Your task to perform on an android device: toggle javascript in the chrome app Image 0: 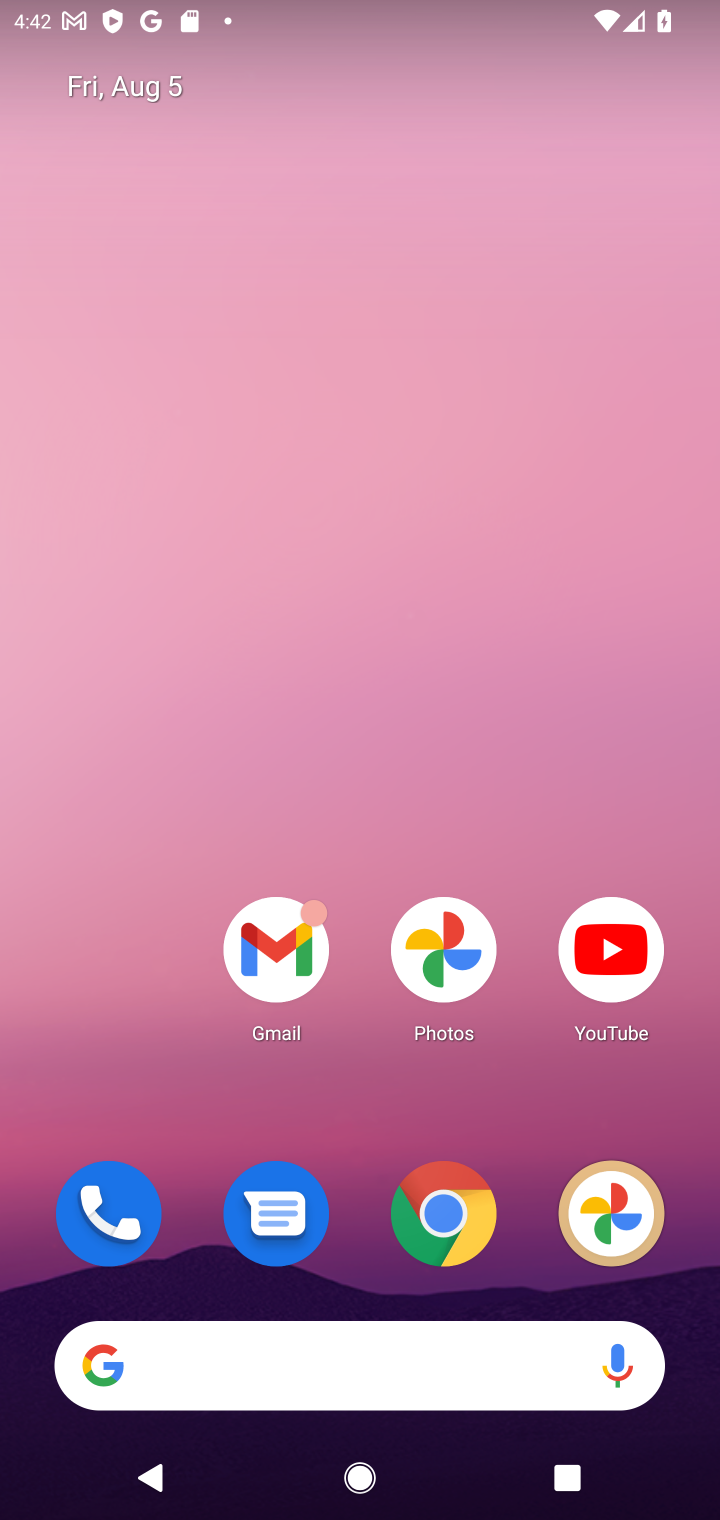
Step 0: click (453, 1254)
Your task to perform on an android device: toggle javascript in the chrome app Image 1: 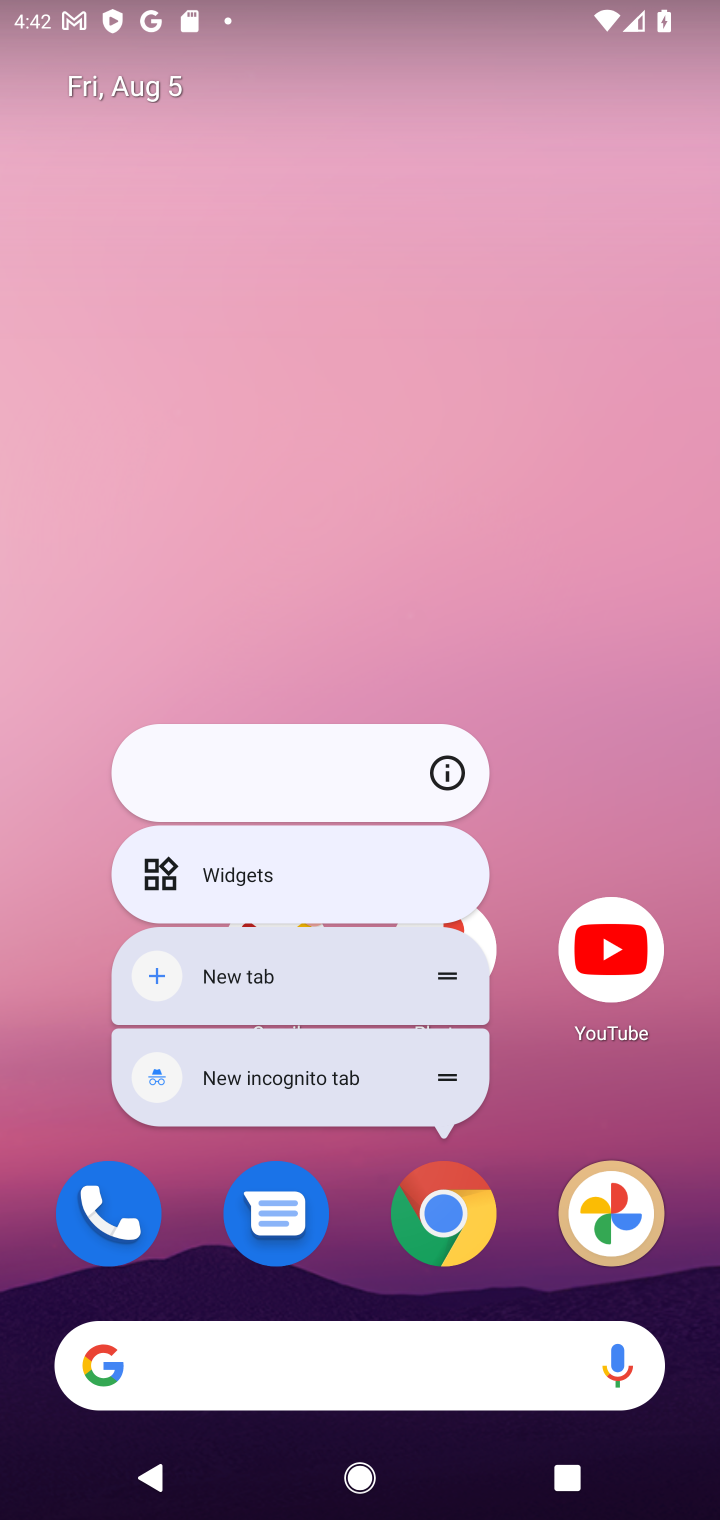
Step 1: click (451, 1228)
Your task to perform on an android device: toggle javascript in the chrome app Image 2: 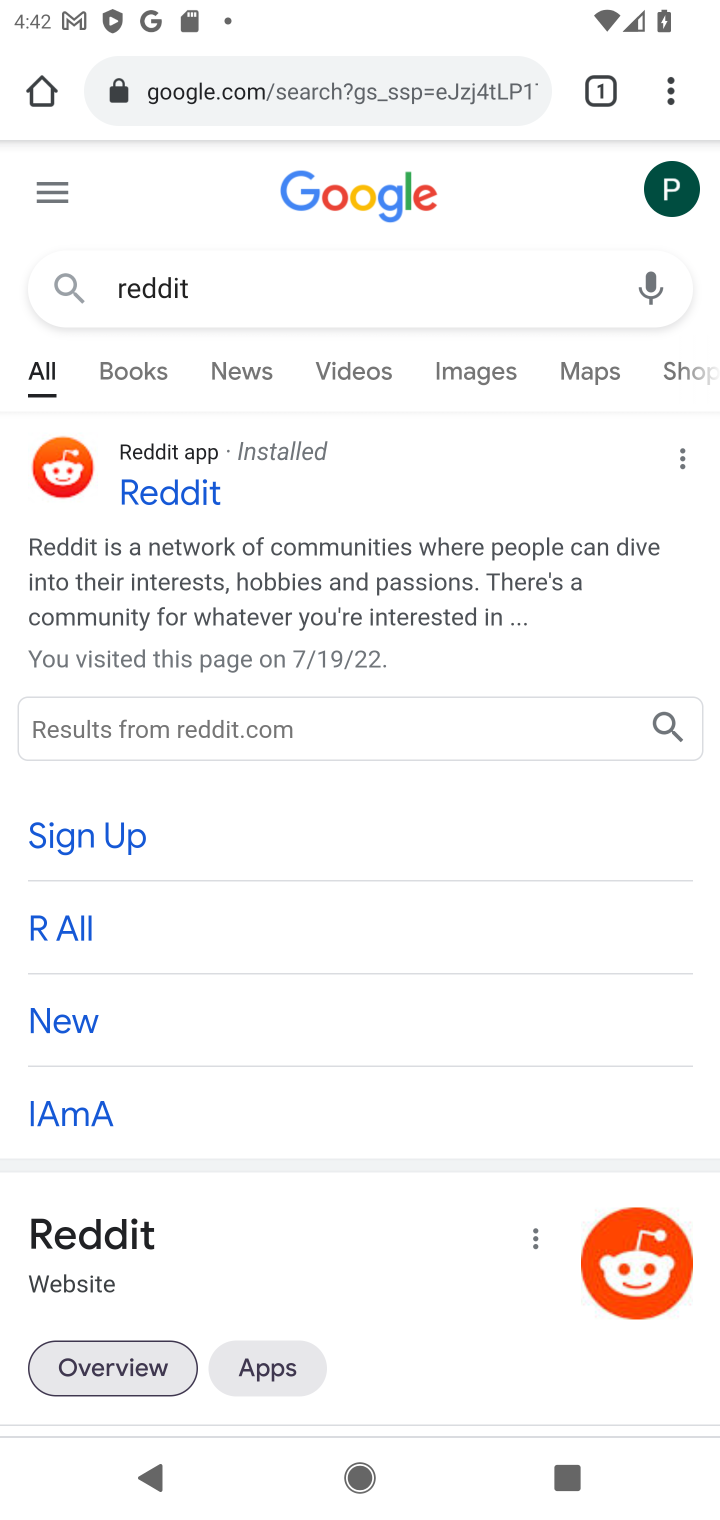
Step 2: click (669, 76)
Your task to perform on an android device: toggle javascript in the chrome app Image 3: 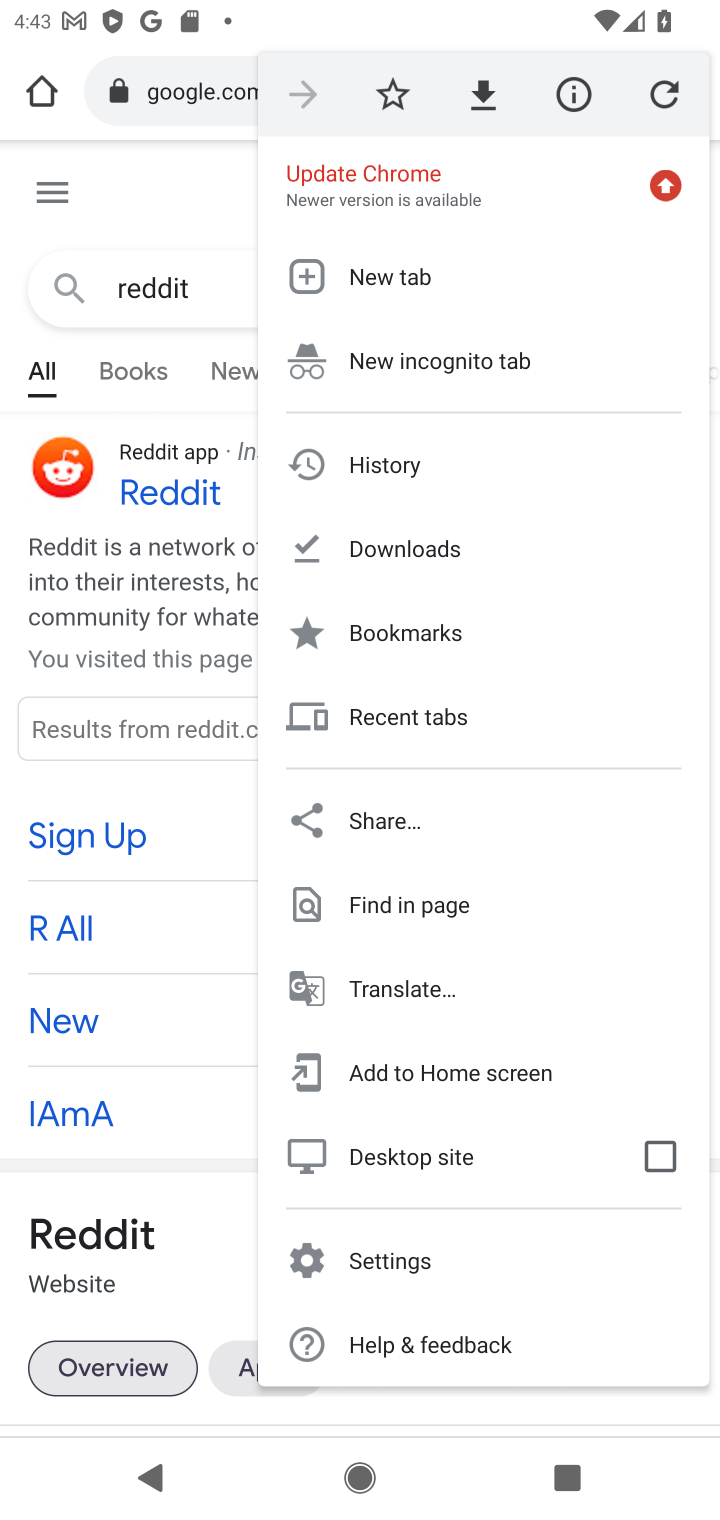
Step 3: click (417, 1250)
Your task to perform on an android device: toggle javascript in the chrome app Image 4: 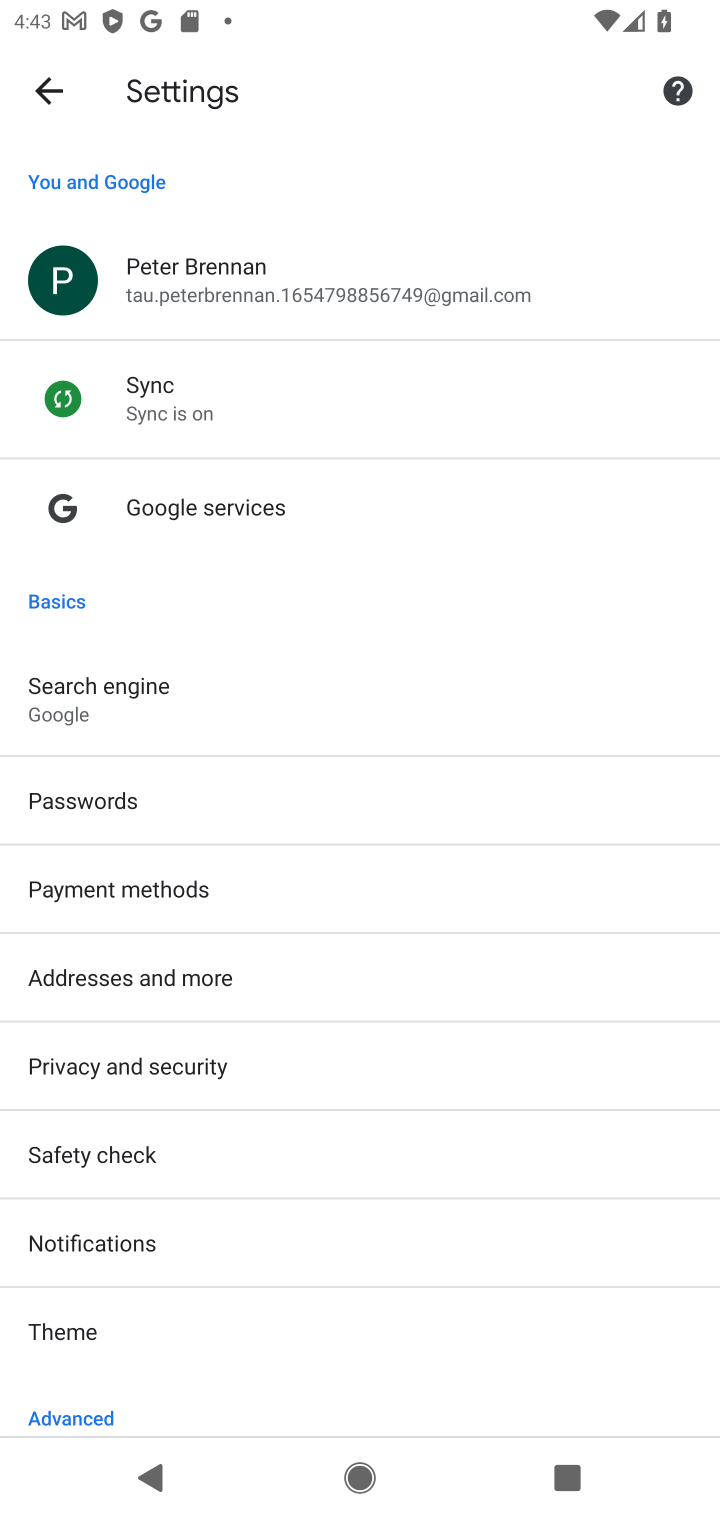
Step 4: drag from (371, 1284) to (334, 280)
Your task to perform on an android device: toggle javascript in the chrome app Image 5: 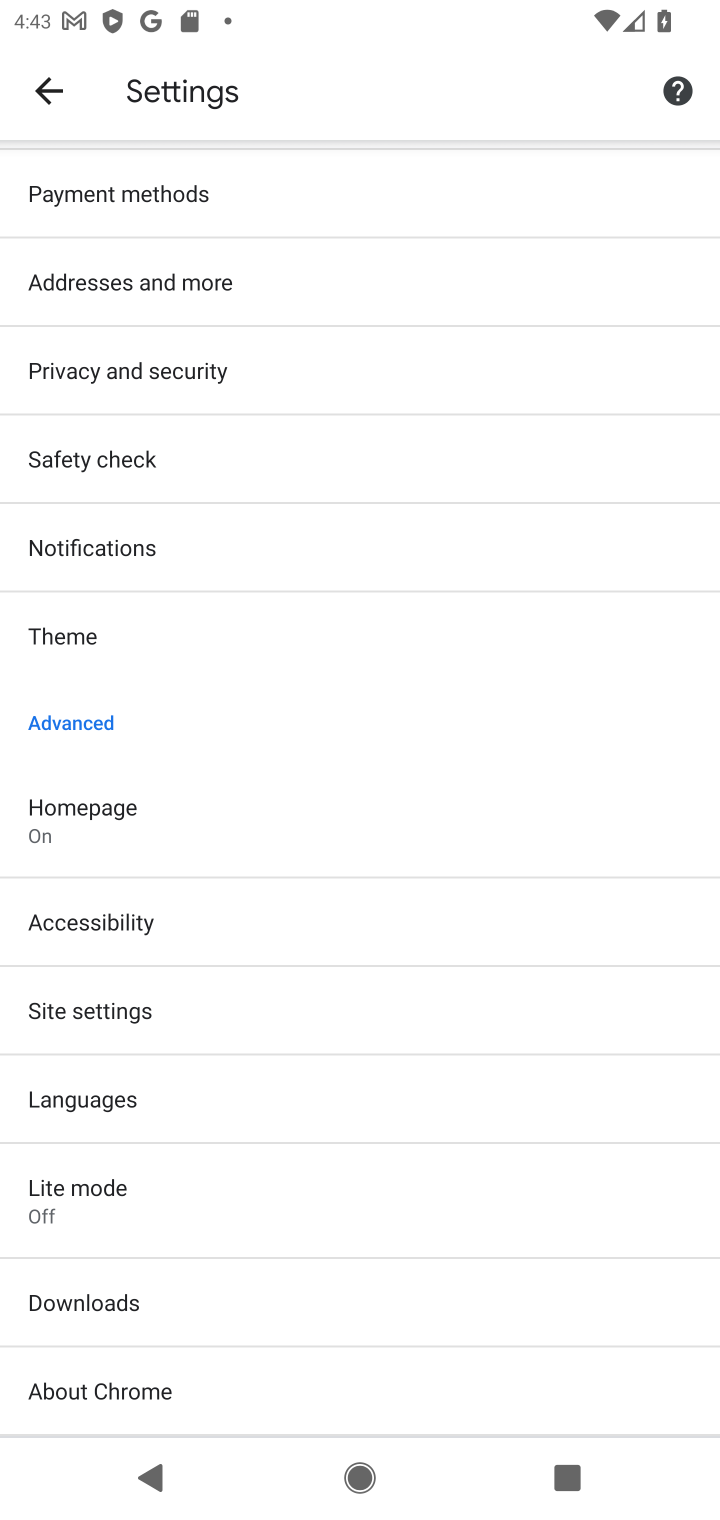
Step 5: click (307, 1035)
Your task to perform on an android device: toggle javascript in the chrome app Image 6: 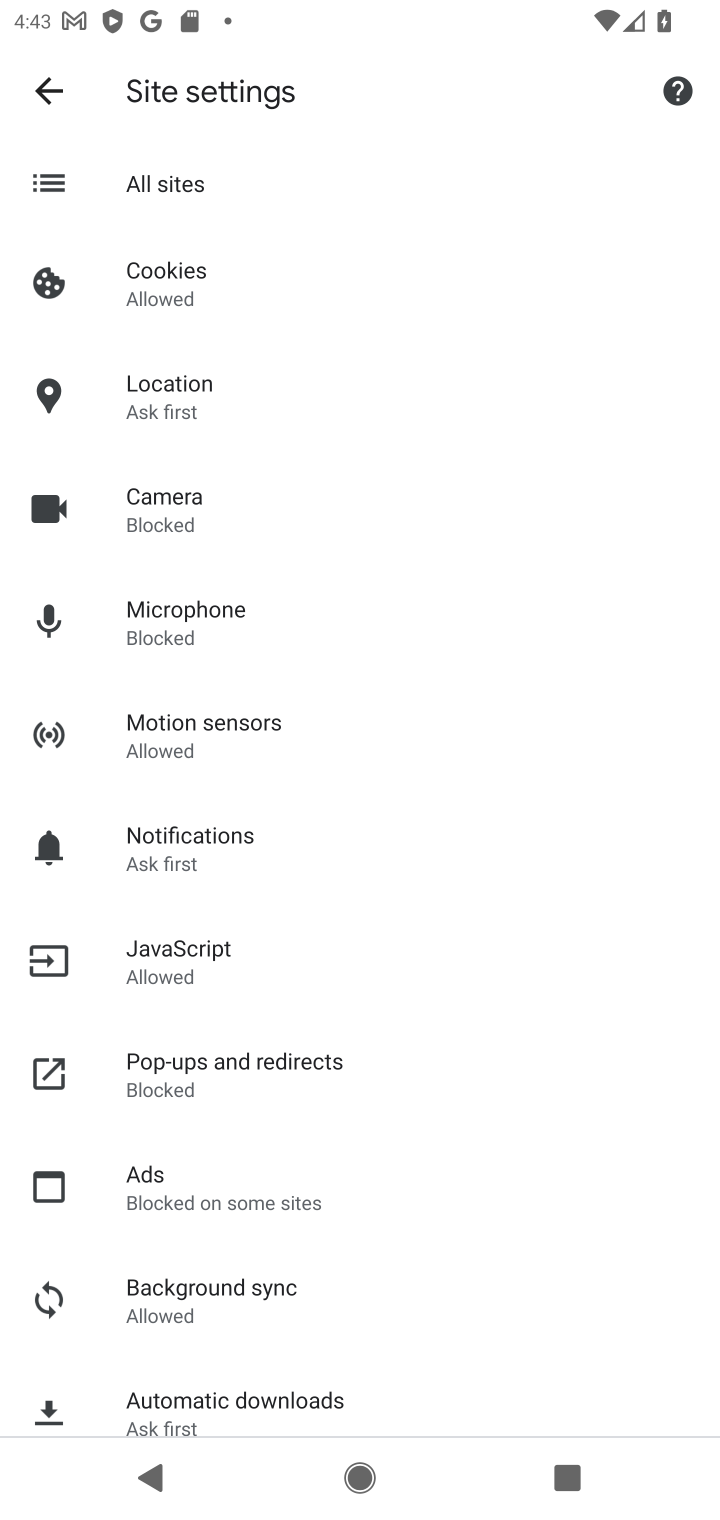
Step 6: click (258, 976)
Your task to perform on an android device: toggle javascript in the chrome app Image 7: 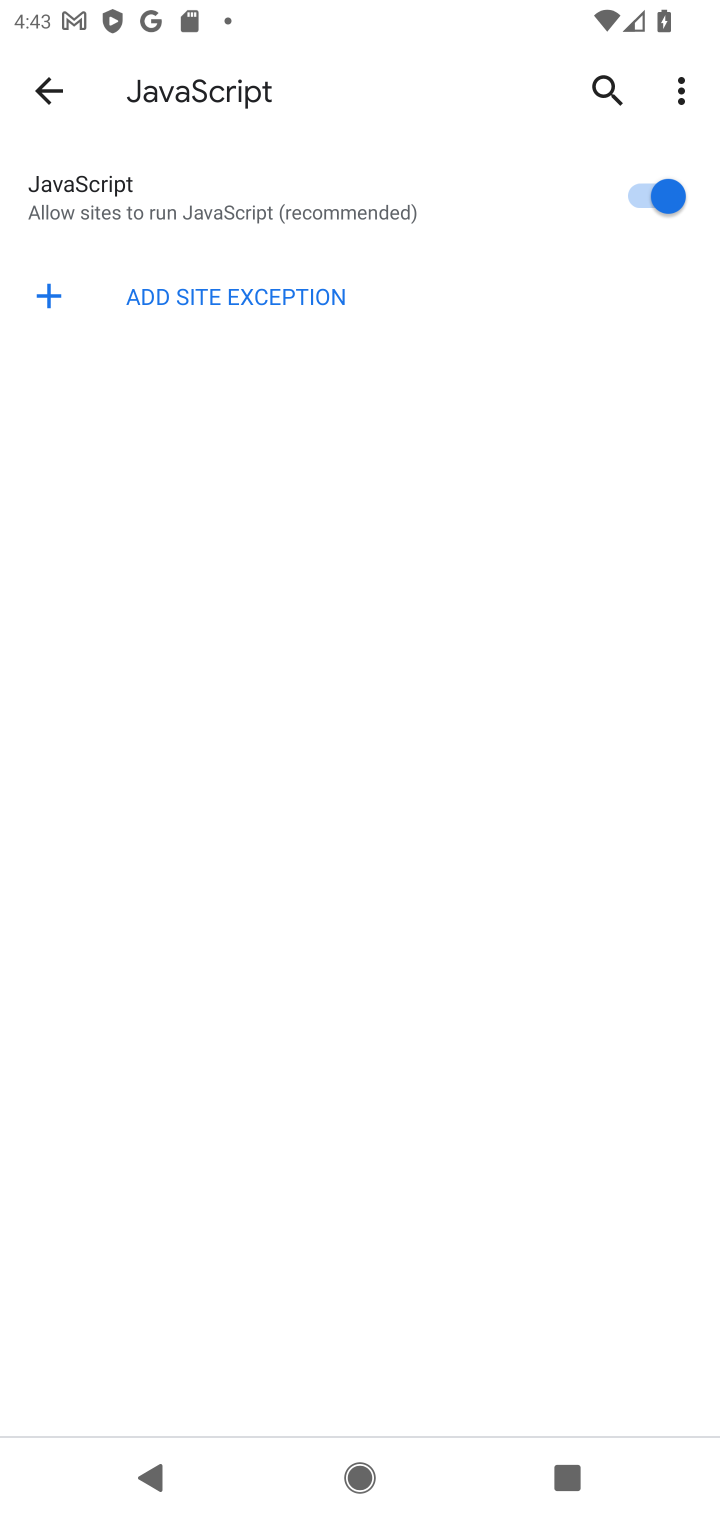
Step 7: click (679, 185)
Your task to perform on an android device: toggle javascript in the chrome app Image 8: 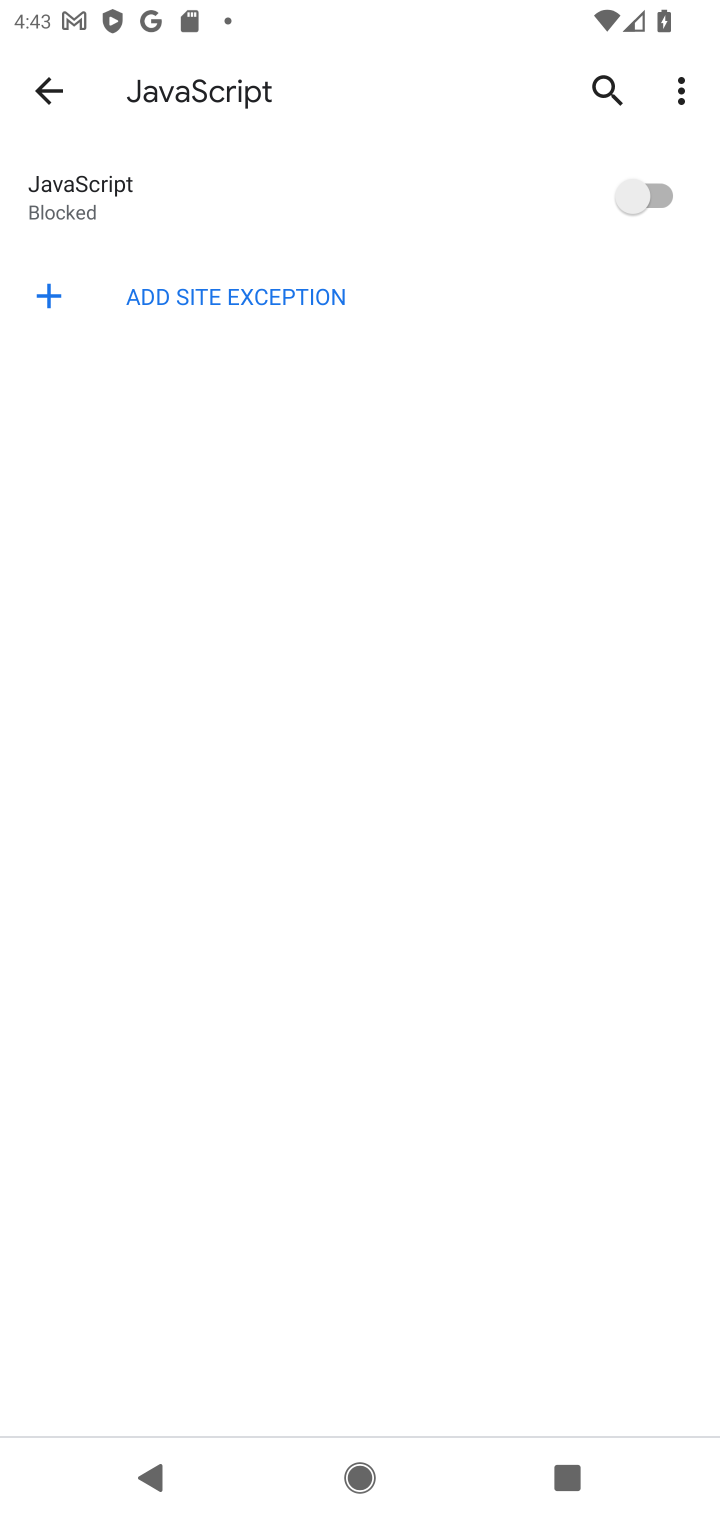
Step 8: task complete